Your task to perform on an android device: Go to network settings Image 0: 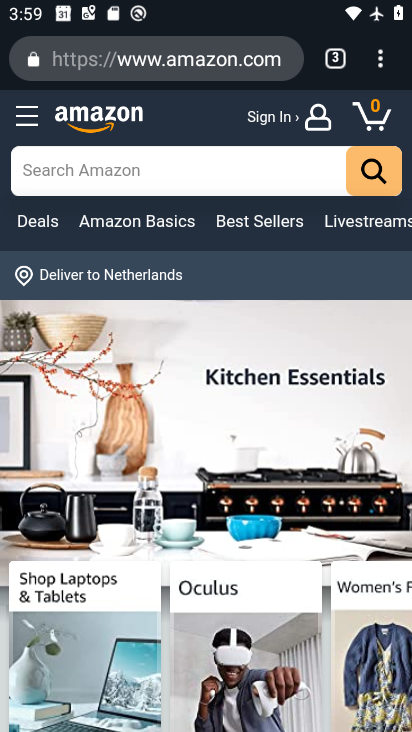
Step 0: press home button
Your task to perform on an android device: Go to network settings Image 1: 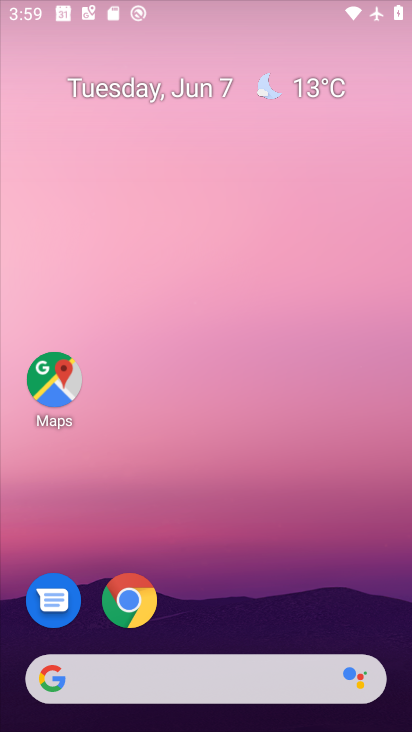
Step 1: drag from (331, 635) to (197, 228)
Your task to perform on an android device: Go to network settings Image 2: 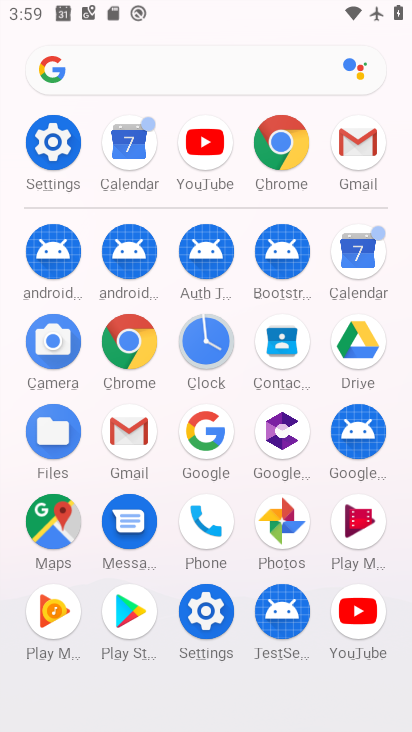
Step 2: click (54, 142)
Your task to perform on an android device: Go to network settings Image 3: 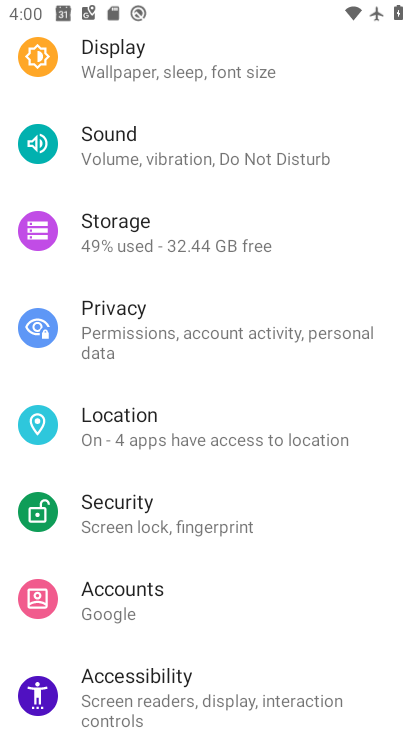
Step 3: drag from (207, 201) to (250, 592)
Your task to perform on an android device: Go to network settings Image 4: 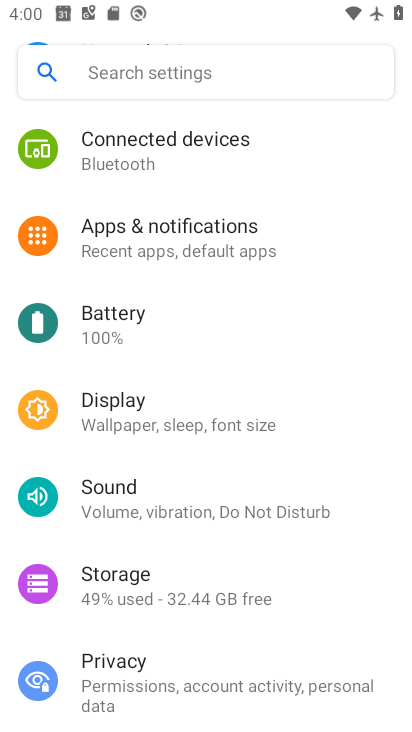
Step 4: drag from (181, 173) to (208, 545)
Your task to perform on an android device: Go to network settings Image 5: 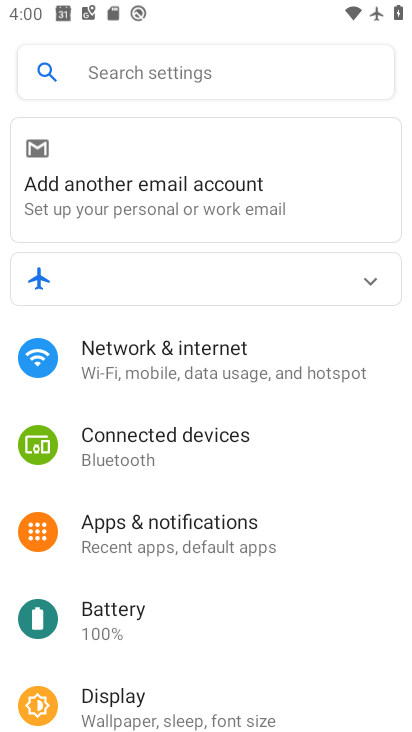
Step 5: click (178, 367)
Your task to perform on an android device: Go to network settings Image 6: 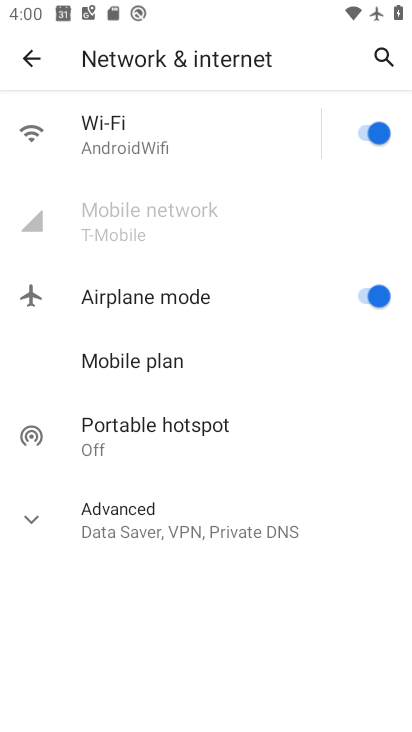
Step 6: click (222, 532)
Your task to perform on an android device: Go to network settings Image 7: 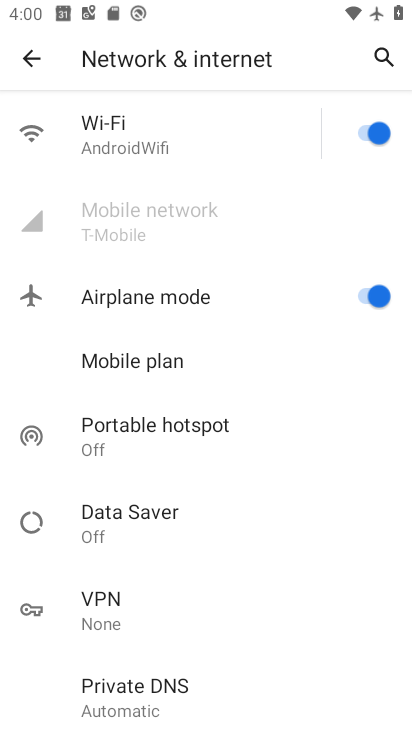
Step 7: task complete